Your task to perform on an android device: Set the phone to "Do not disturb". Image 0: 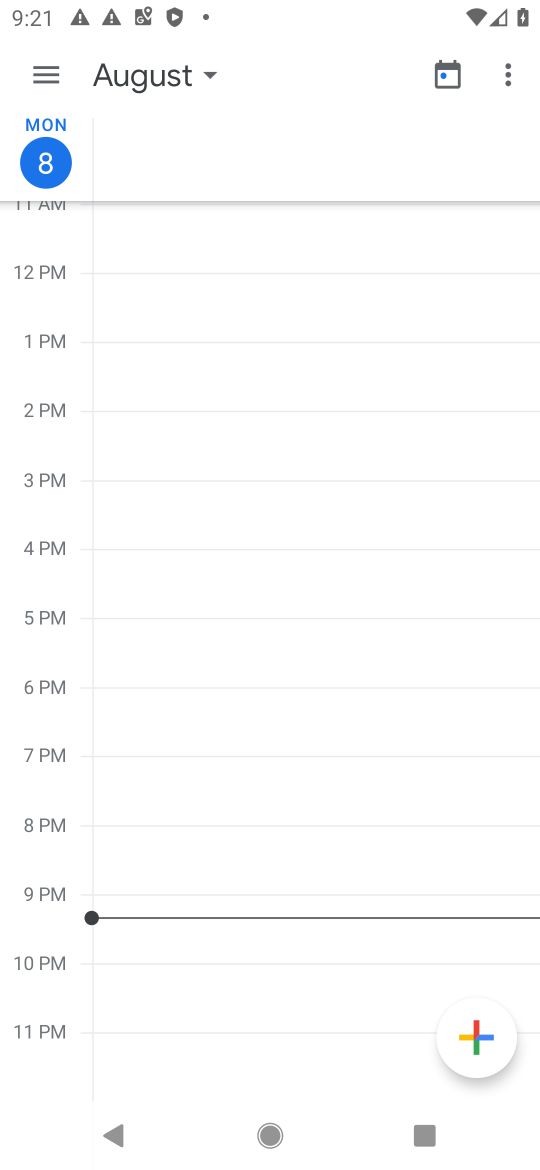
Step 0: press home button
Your task to perform on an android device: Set the phone to "Do not disturb". Image 1: 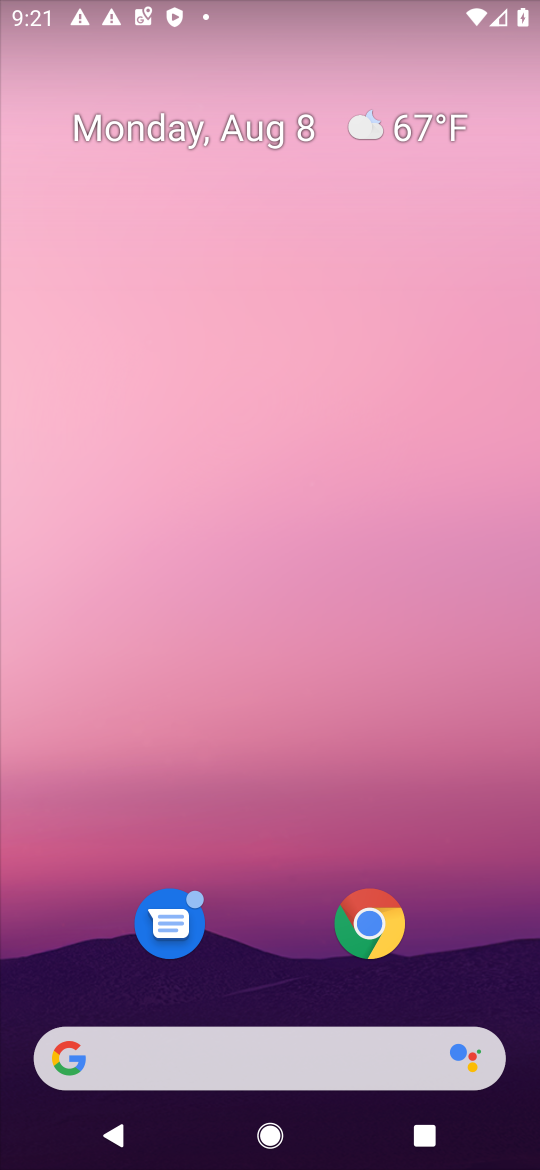
Step 1: drag from (33, 1142) to (194, 671)
Your task to perform on an android device: Set the phone to "Do not disturb". Image 2: 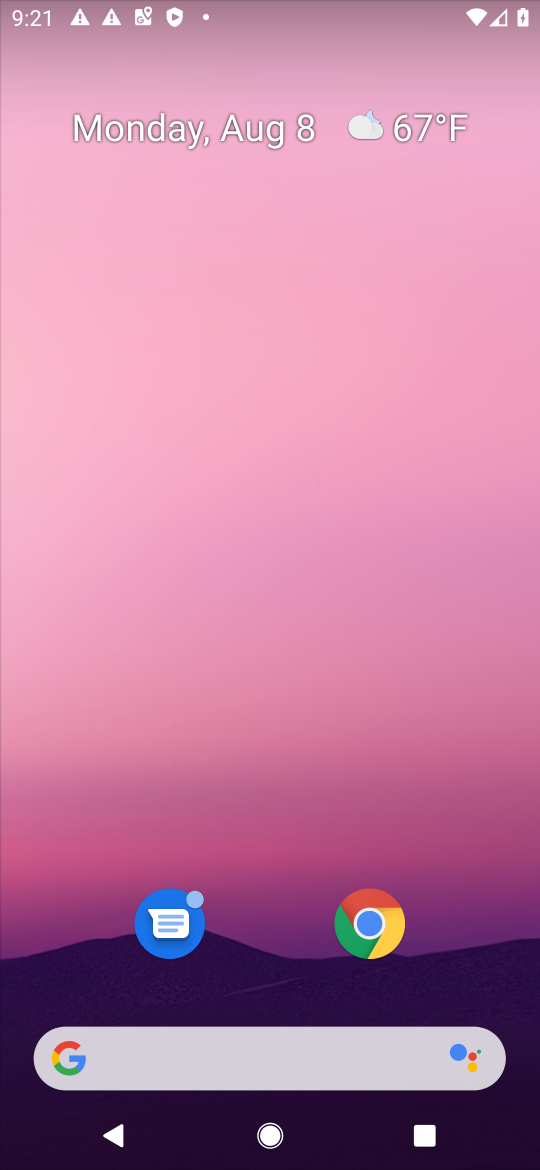
Step 2: drag from (51, 1140) to (539, 74)
Your task to perform on an android device: Set the phone to "Do not disturb". Image 3: 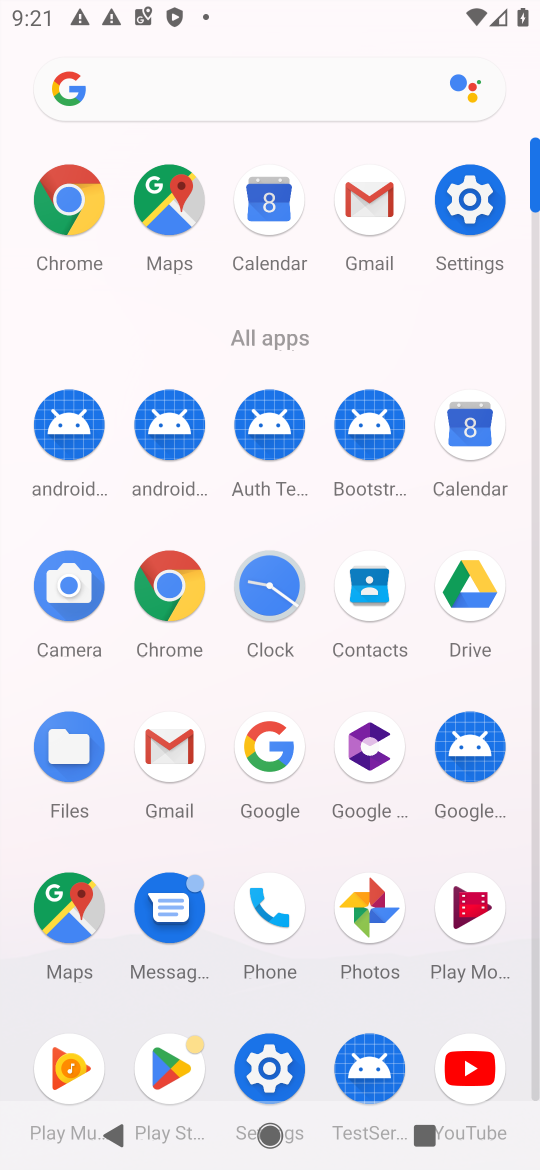
Step 3: click (265, 1077)
Your task to perform on an android device: Set the phone to "Do not disturb". Image 4: 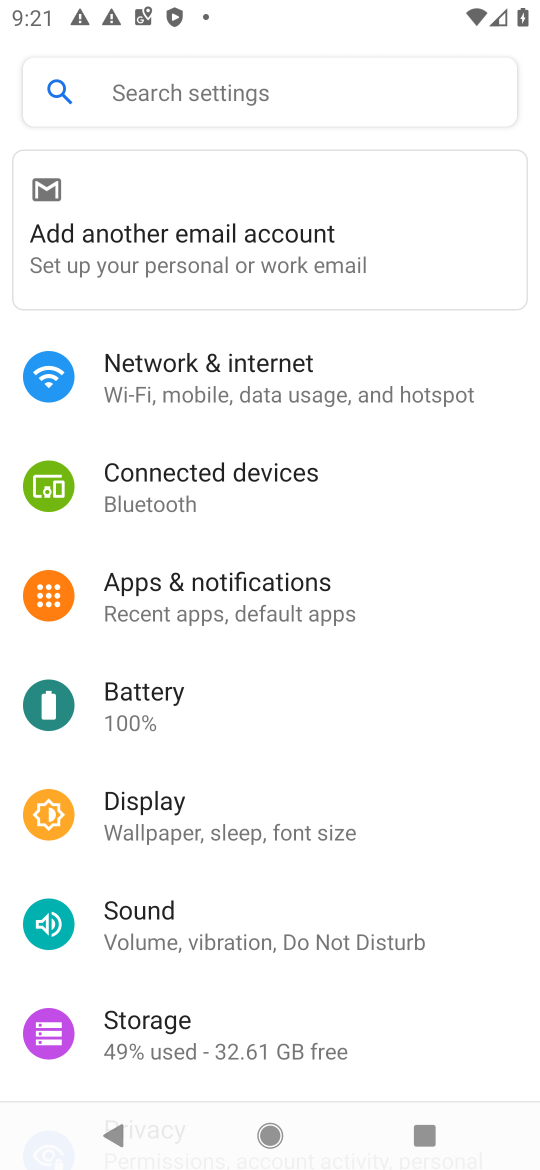
Step 4: click (264, 830)
Your task to perform on an android device: Set the phone to "Do not disturb". Image 5: 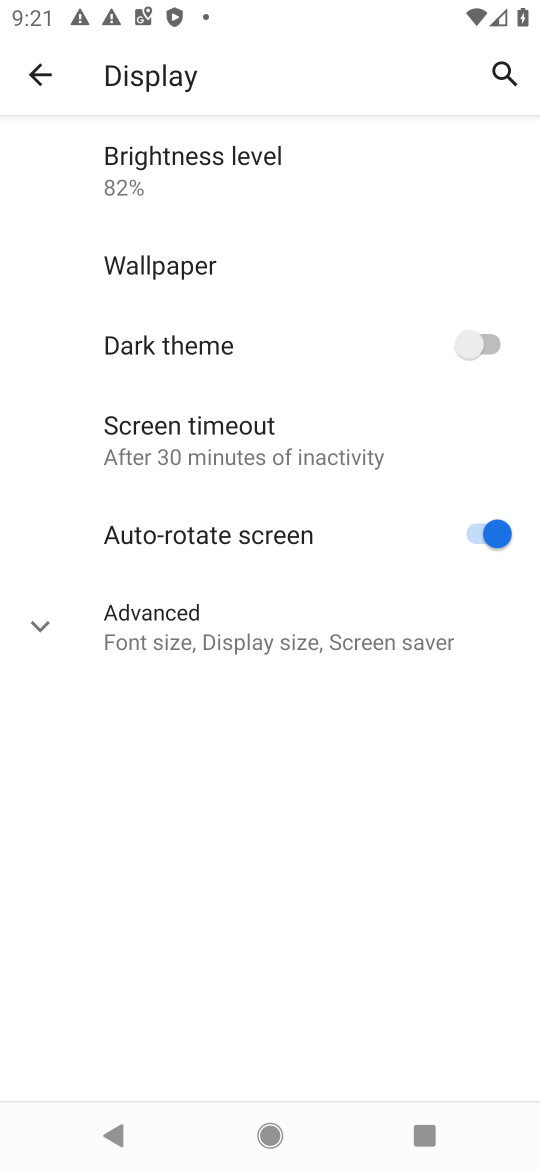
Step 5: click (182, 608)
Your task to perform on an android device: Set the phone to "Do not disturb". Image 6: 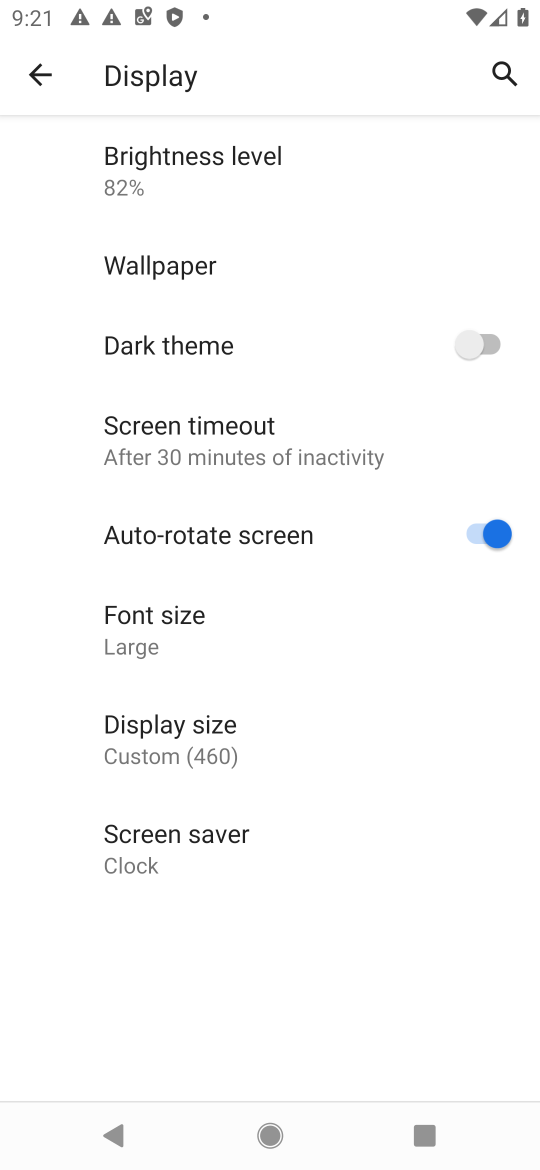
Step 6: click (157, 633)
Your task to perform on an android device: Set the phone to "Do not disturb". Image 7: 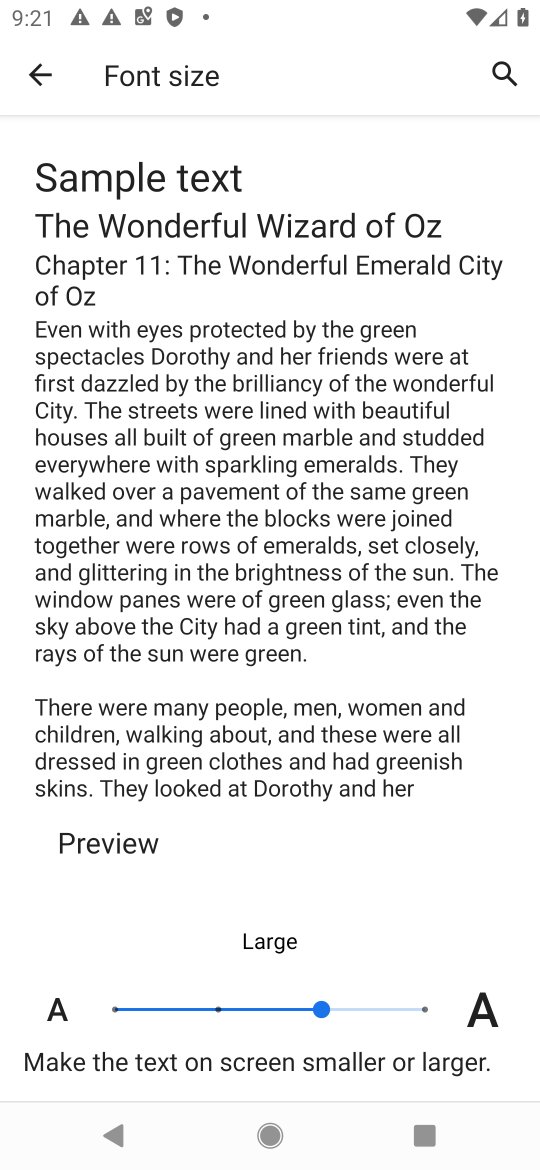
Step 7: click (314, 1004)
Your task to perform on an android device: Set the phone to "Do not disturb". Image 8: 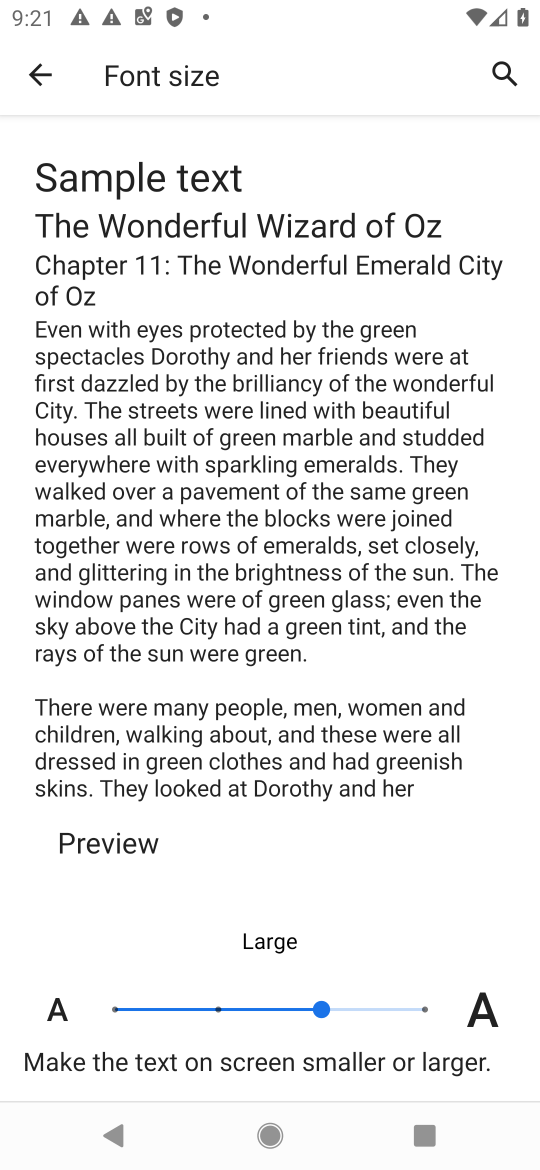
Step 8: click (312, 1000)
Your task to perform on an android device: Set the phone to "Do not disturb". Image 9: 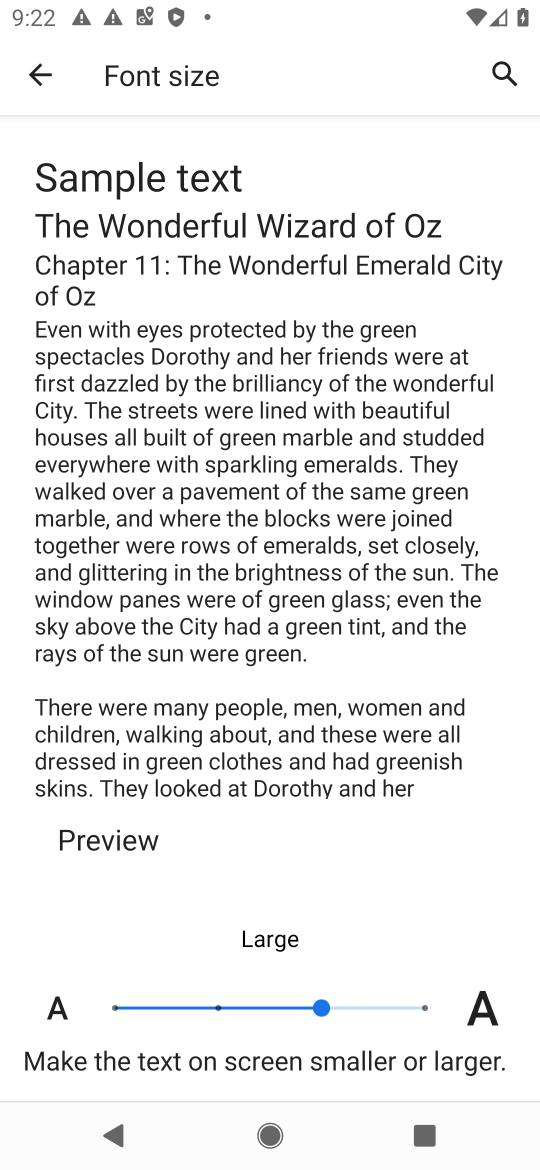
Step 9: click (305, 1004)
Your task to perform on an android device: Set the phone to "Do not disturb". Image 10: 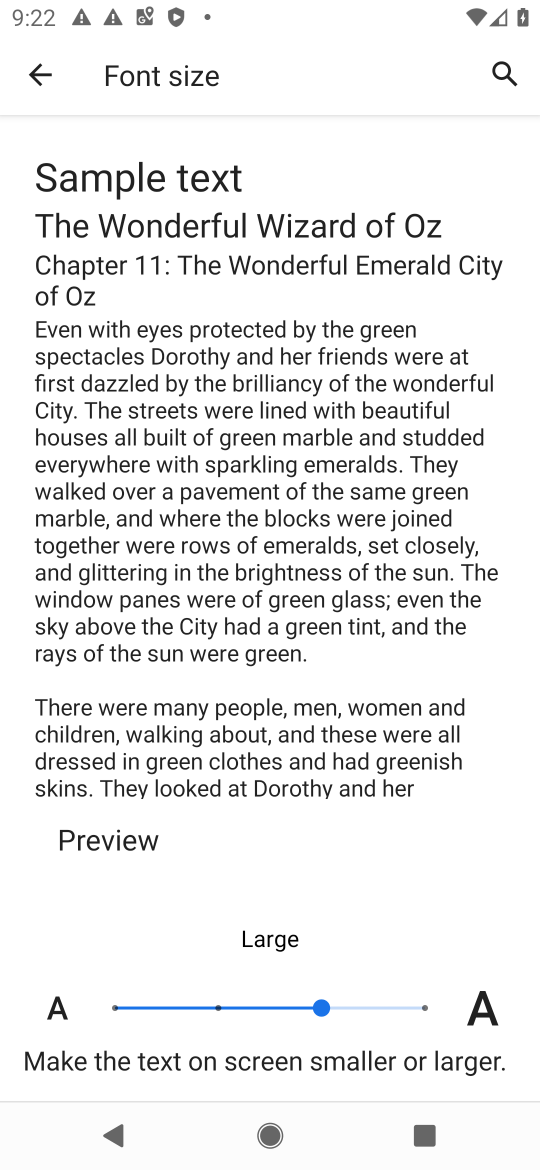
Step 10: task complete